Your task to perform on an android device: Do I have any events today? Image 0: 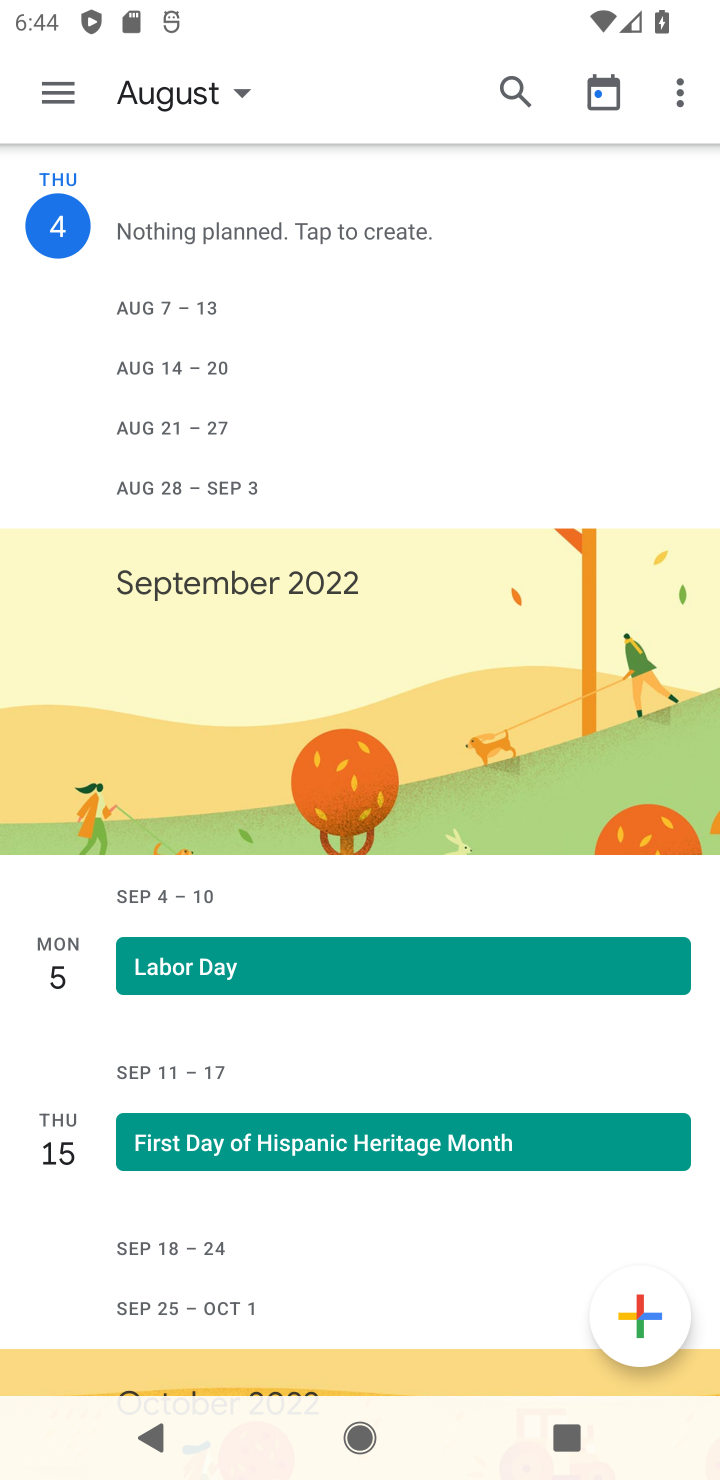
Step 0: press home button
Your task to perform on an android device: Do I have any events today? Image 1: 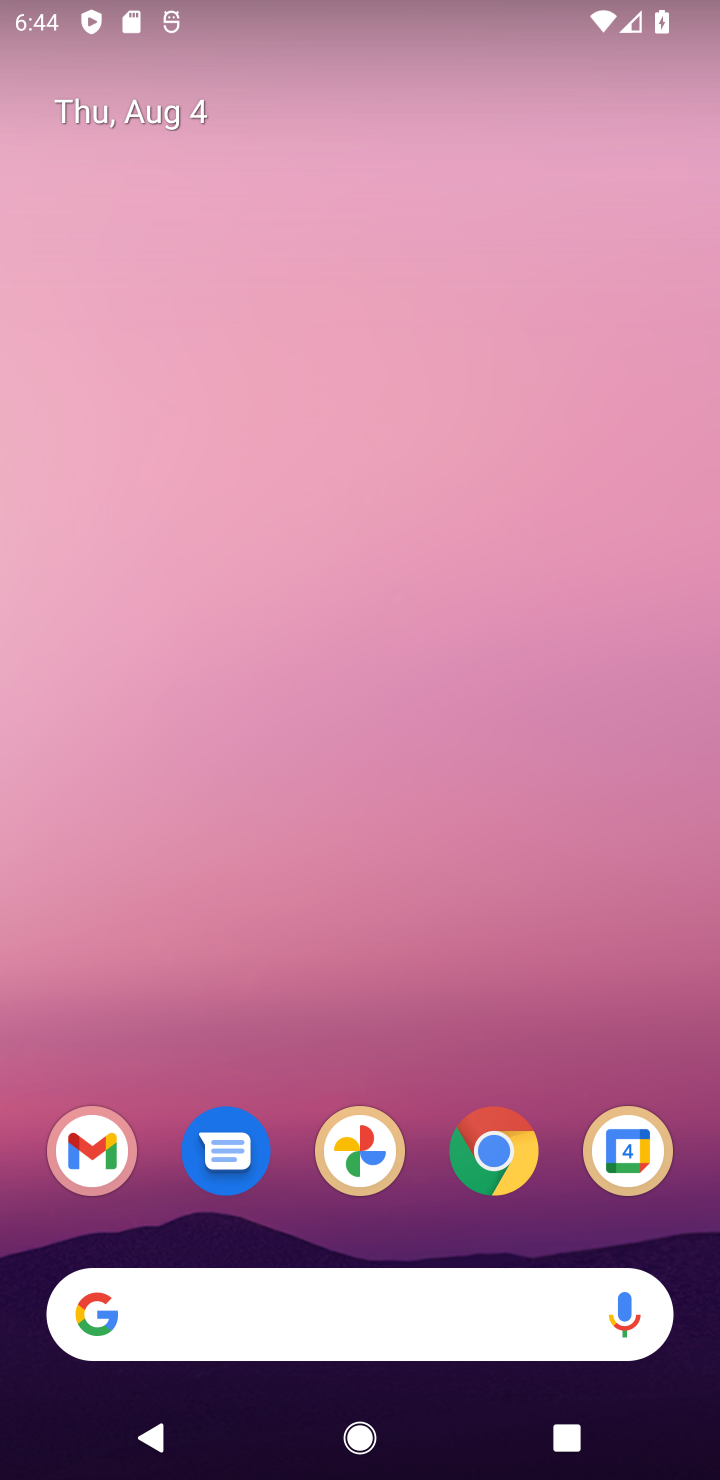
Step 1: drag from (408, 748) to (499, 41)
Your task to perform on an android device: Do I have any events today? Image 2: 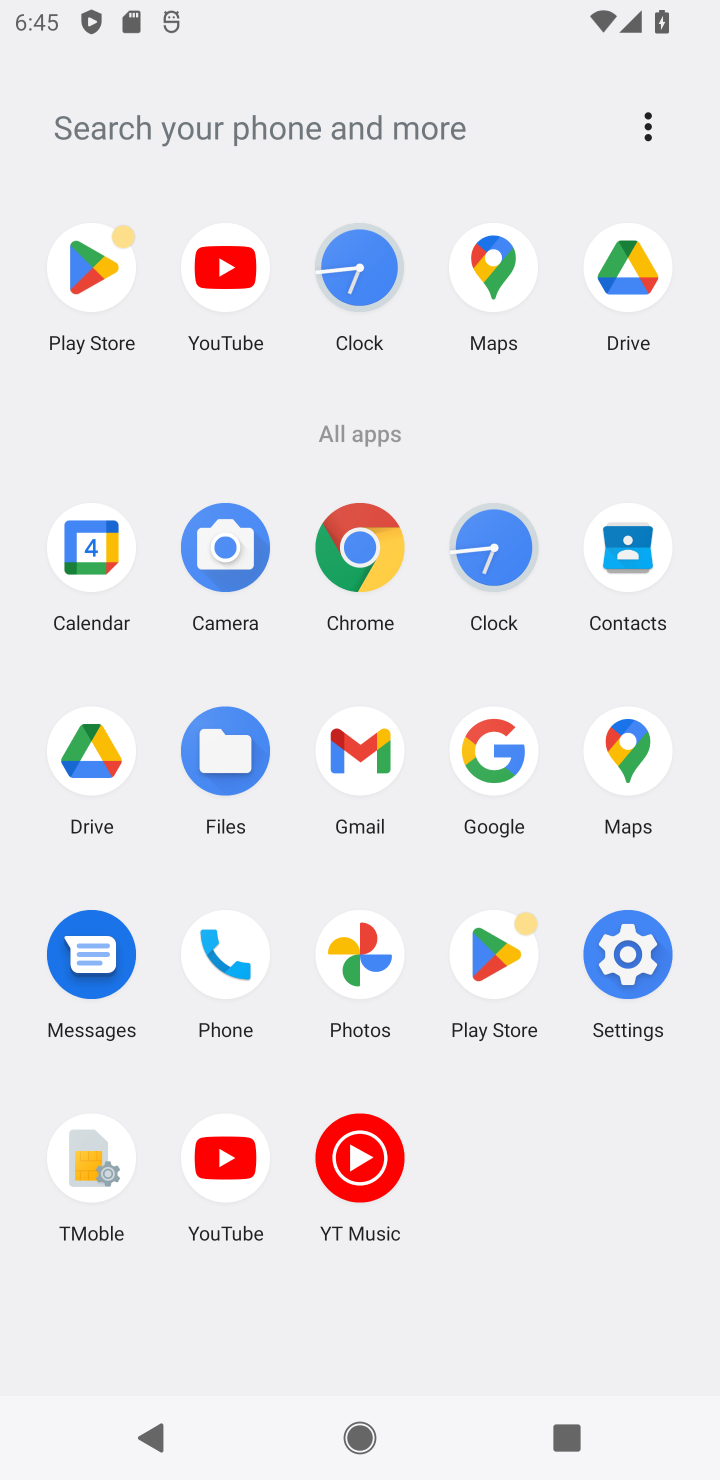
Step 2: click (79, 556)
Your task to perform on an android device: Do I have any events today? Image 3: 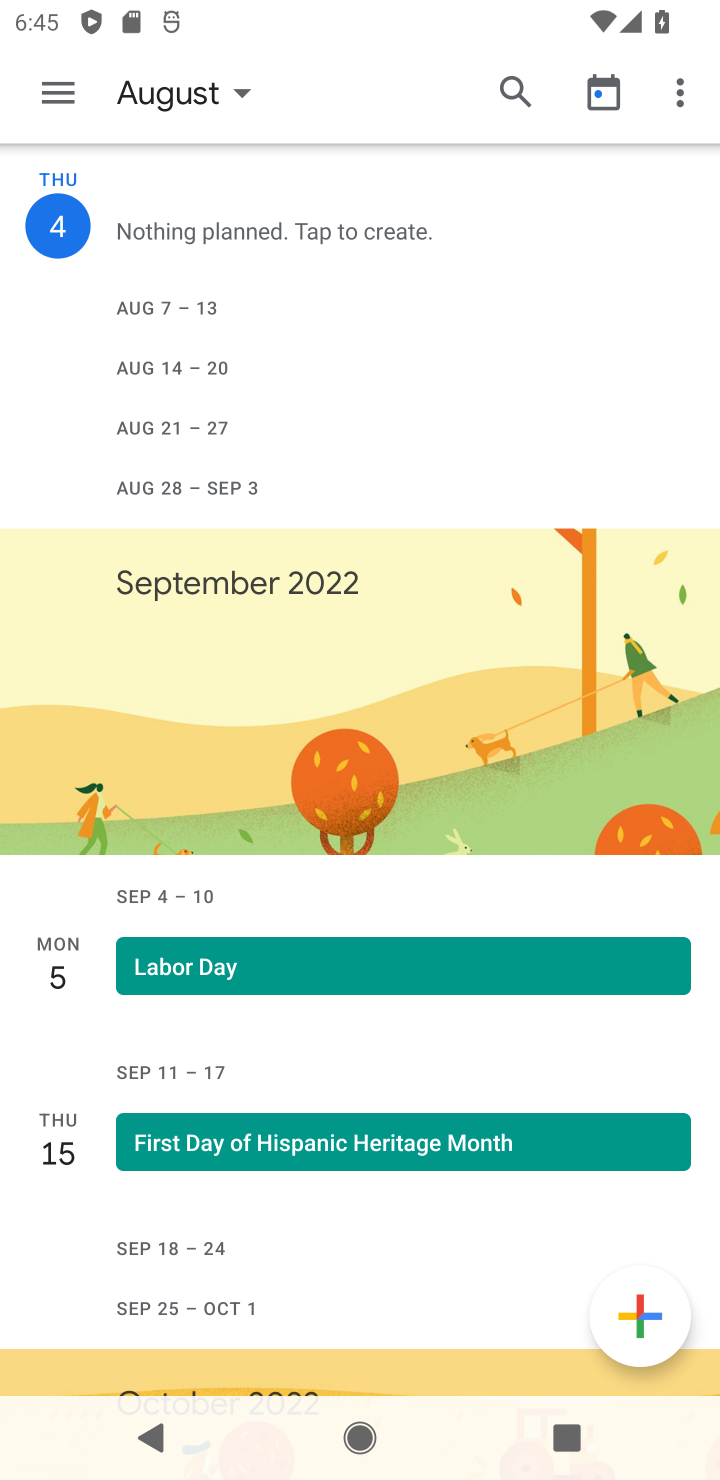
Step 3: click (58, 90)
Your task to perform on an android device: Do I have any events today? Image 4: 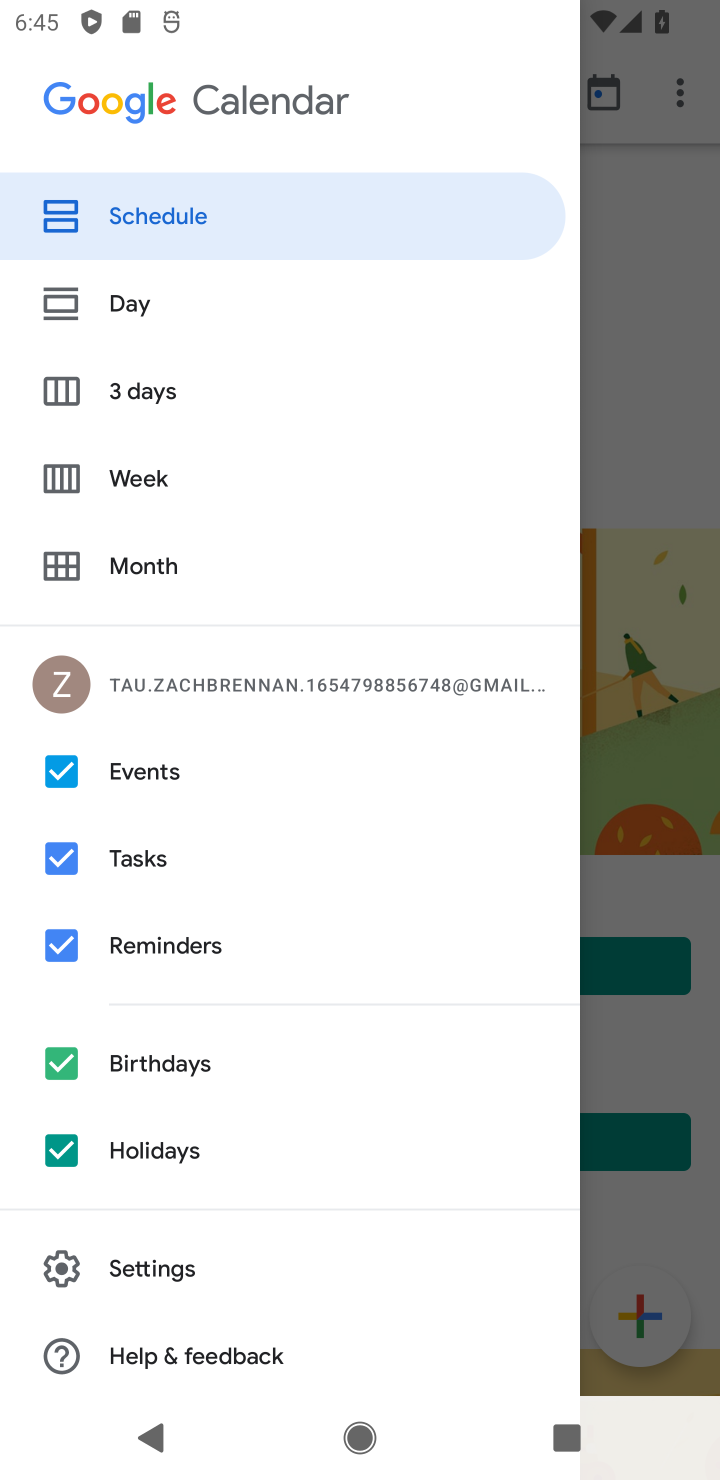
Step 4: click (89, 864)
Your task to perform on an android device: Do I have any events today? Image 5: 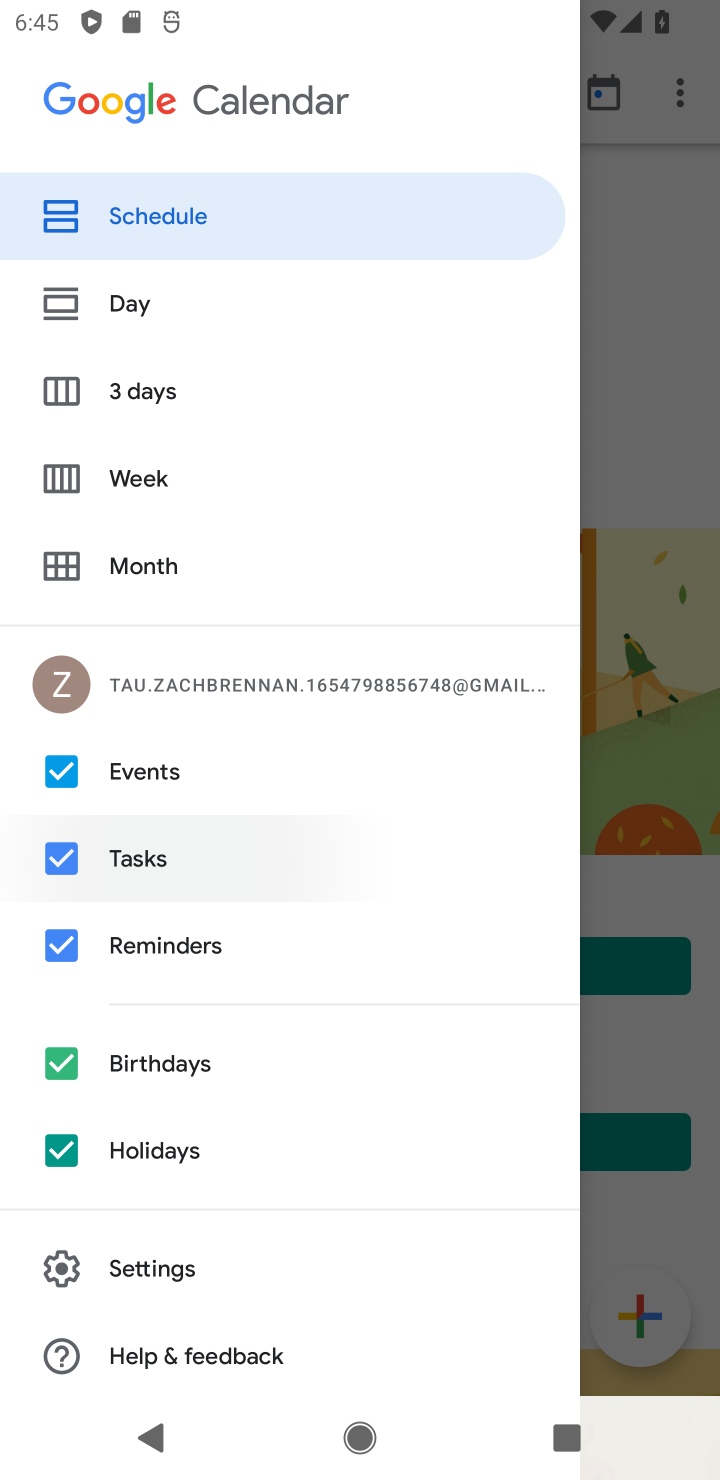
Step 5: click (95, 951)
Your task to perform on an android device: Do I have any events today? Image 6: 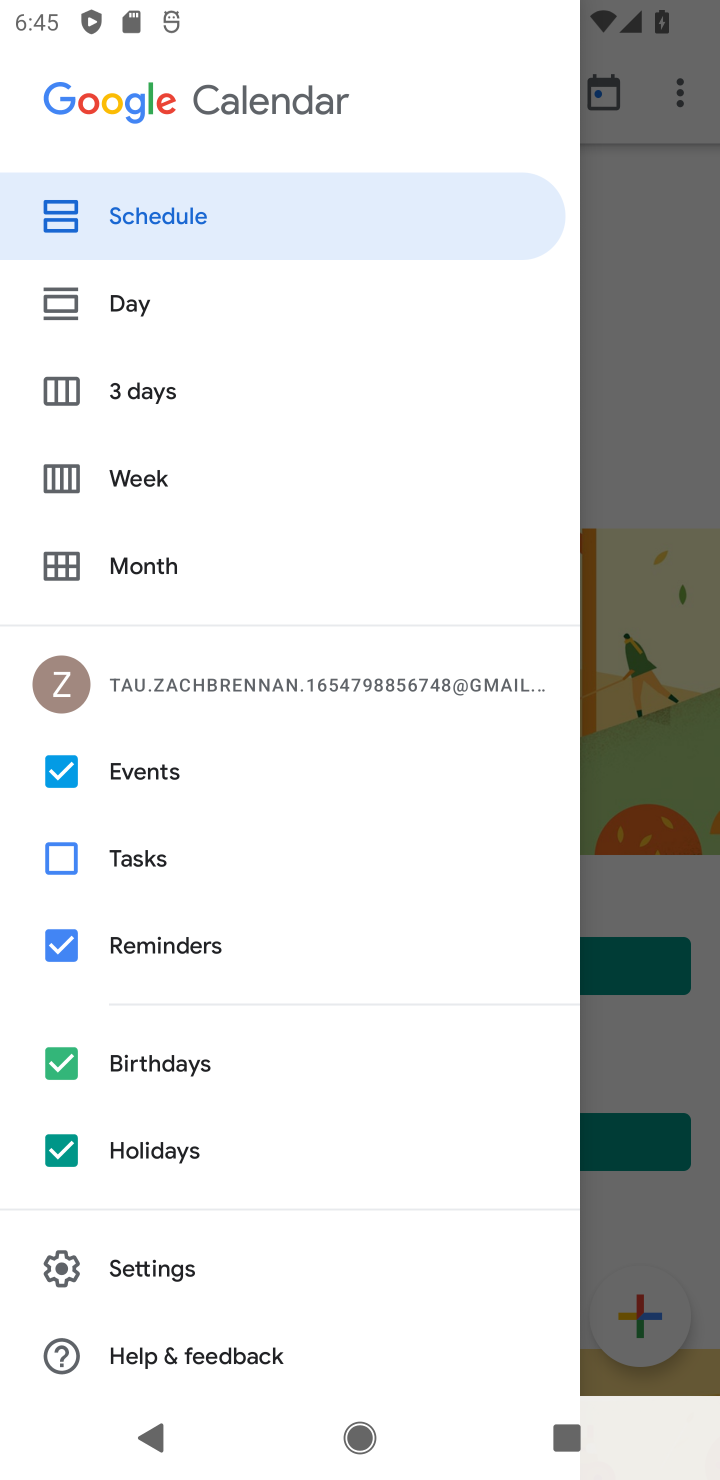
Step 6: click (101, 1058)
Your task to perform on an android device: Do I have any events today? Image 7: 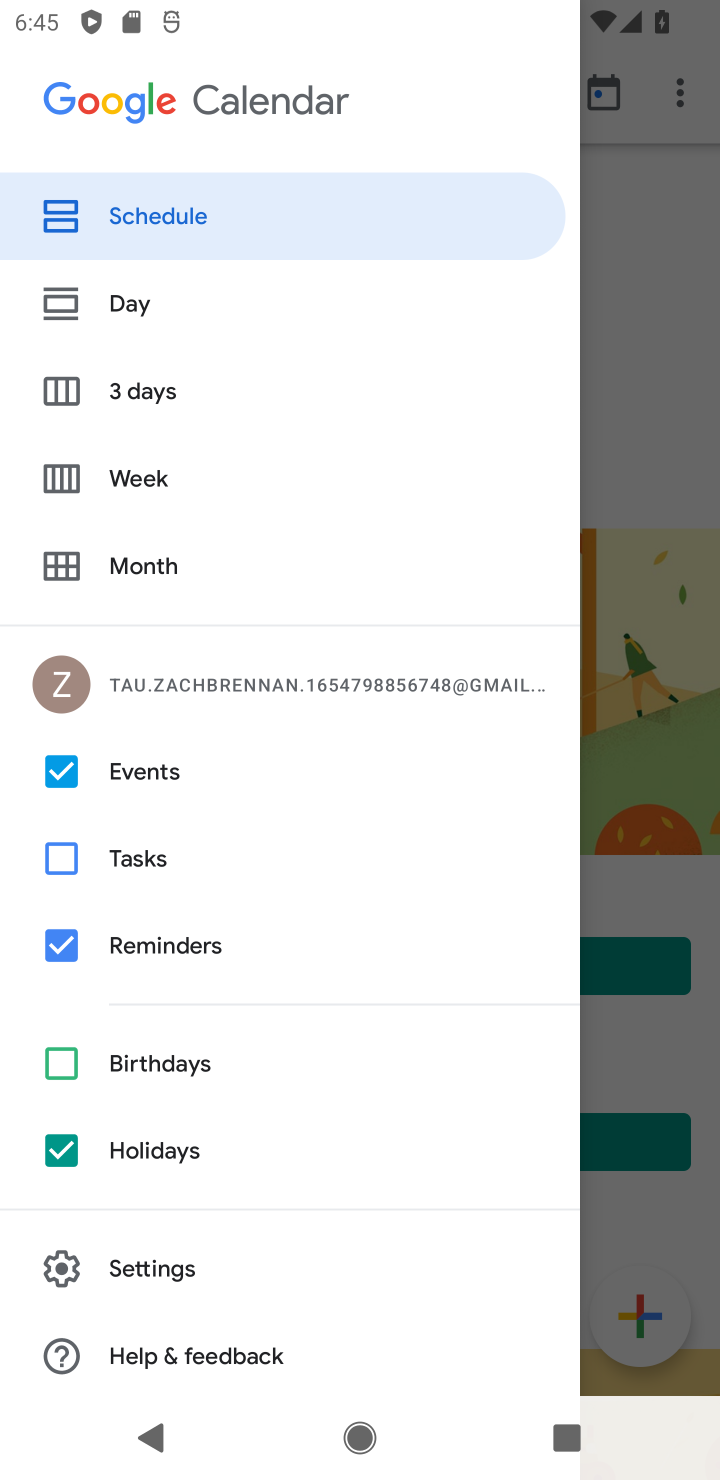
Step 7: click (77, 1151)
Your task to perform on an android device: Do I have any events today? Image 8: 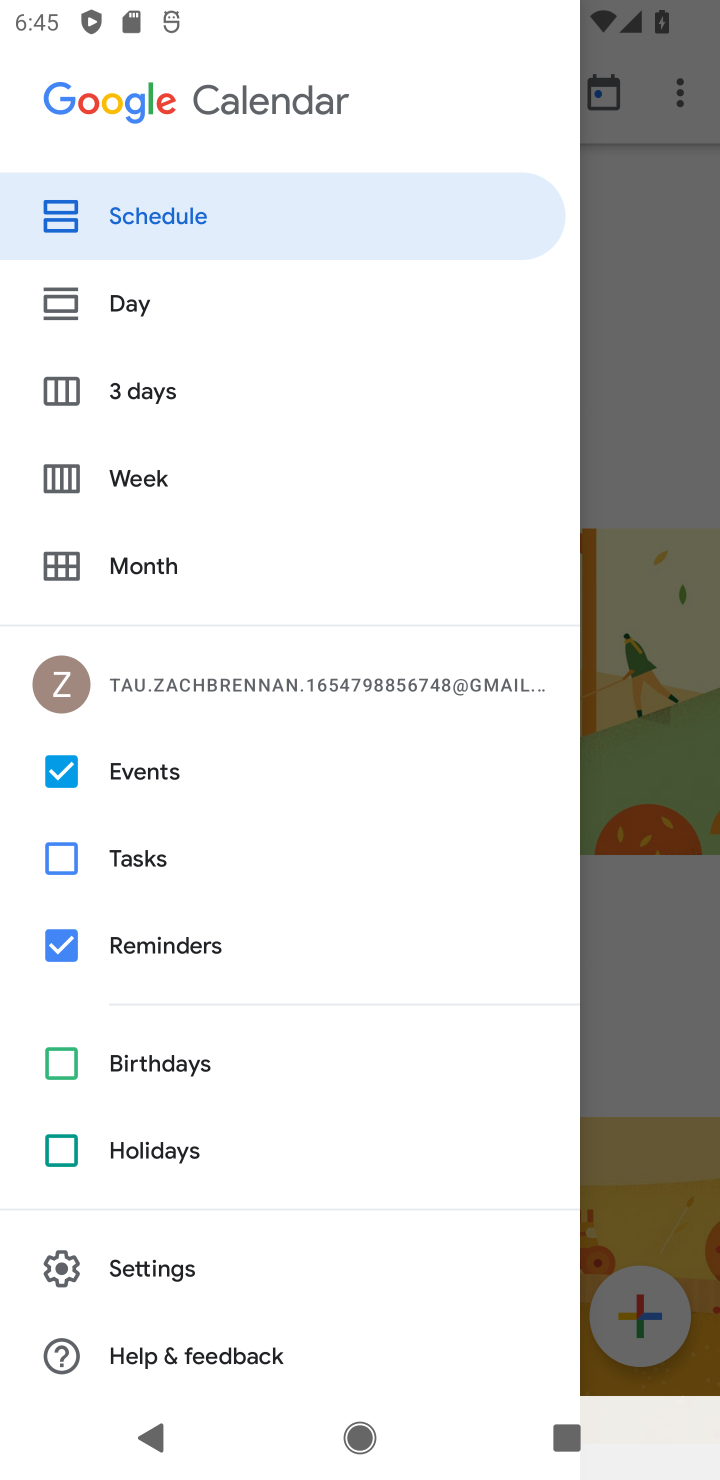
Step 8: click (121, 933)
Your task to perform on an android device: Do I have any events today? Image 9: 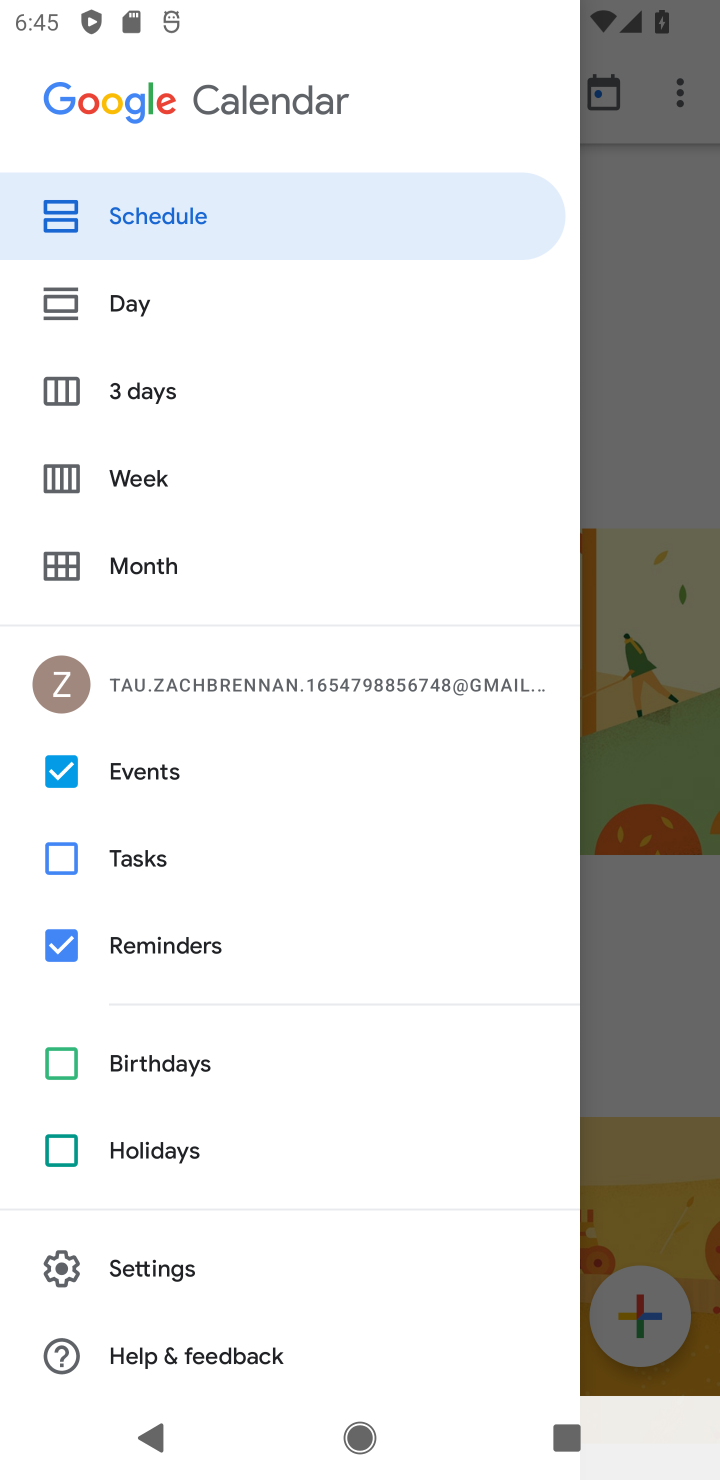
Step 9: click (201, 940)
Your task to perform on an android device: Do I have any events today? Image 10: 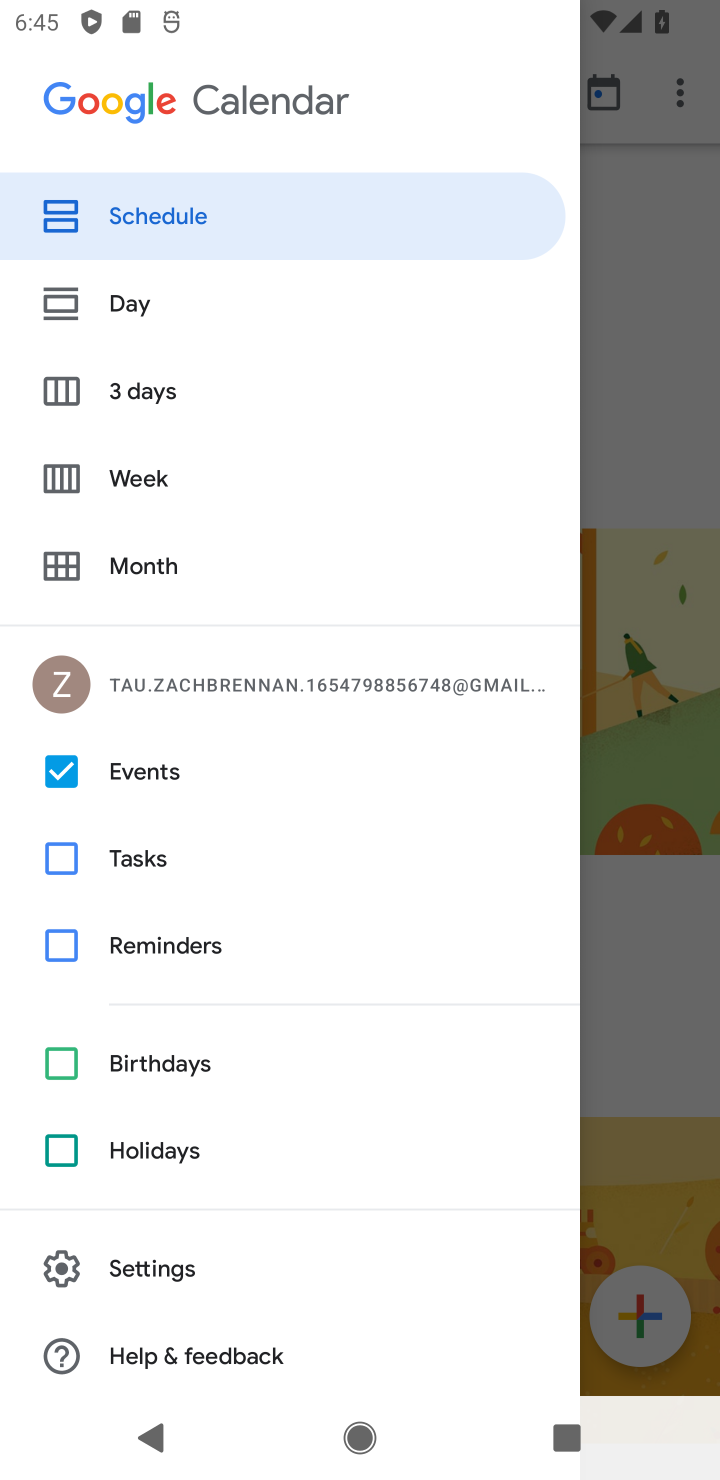
Step 10: click (158, 326)
Your task to perform on an android device: Do I have any events today? Image 11: 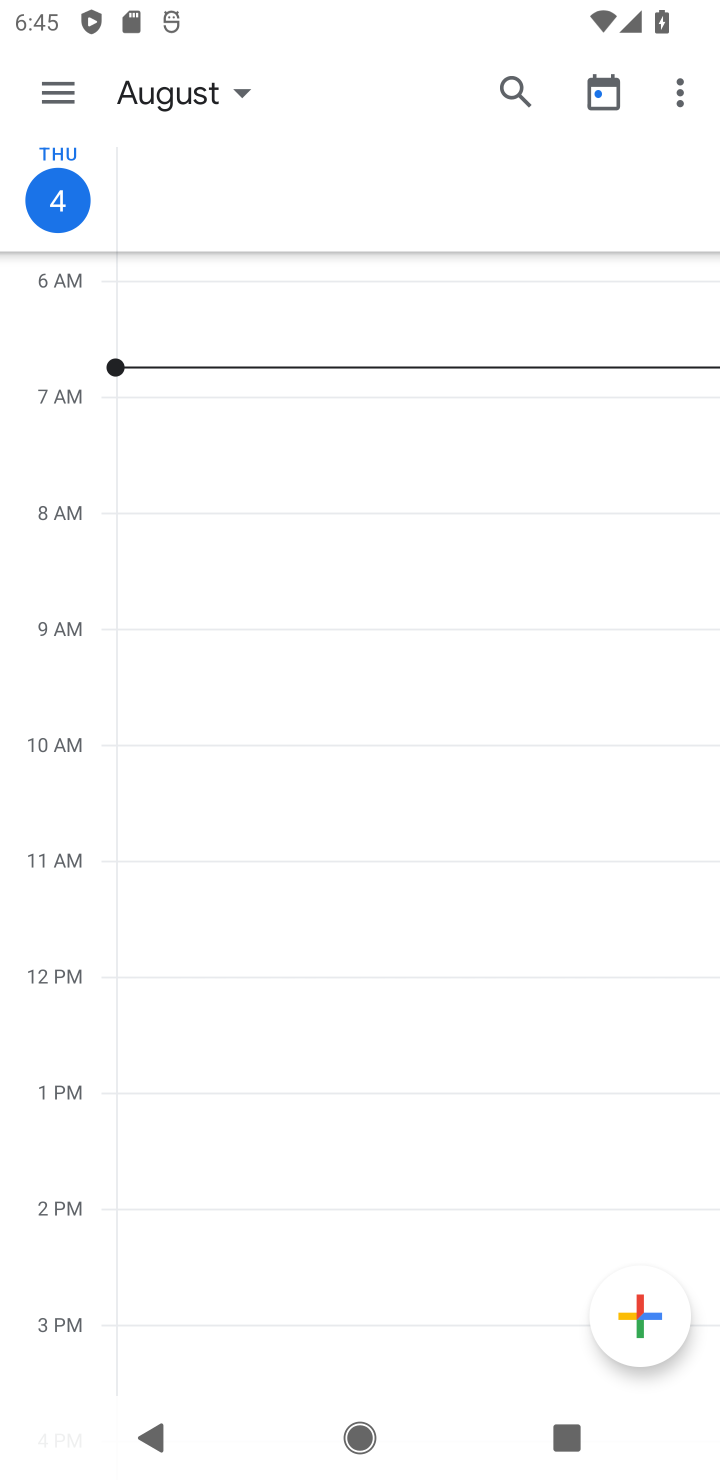
Step 11: task complete